Your task to perform on an android device: open app "Indeed Job Search" (install if not already installed) and go to login screen Image 0: 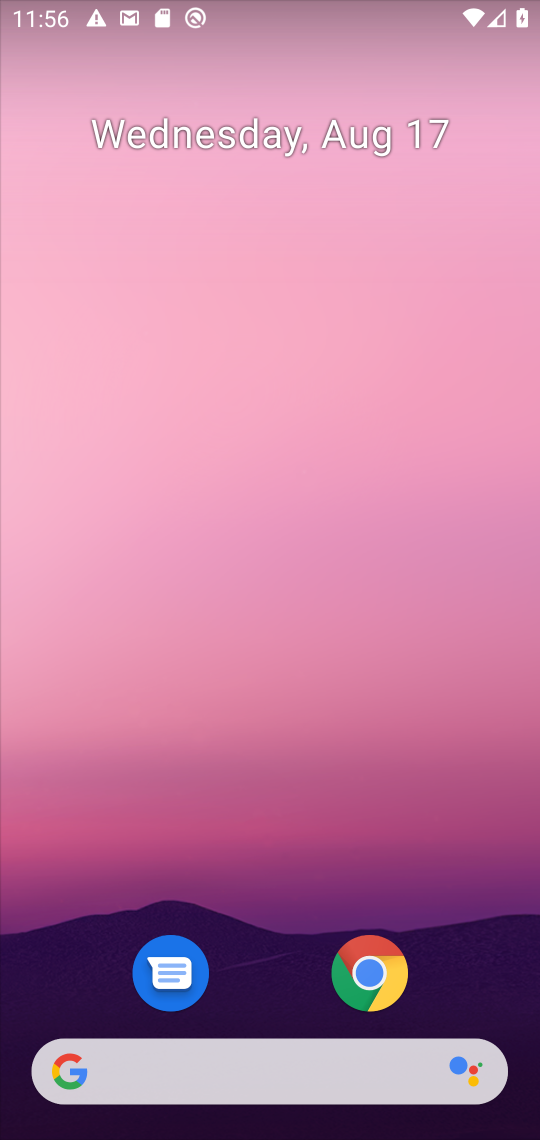
Step 0: drag from (257, 1012) to (155, 62)
Your task to perform on an android device: open app "Indeed Job Search" (install if not already installed) and go to login screen Image 1: 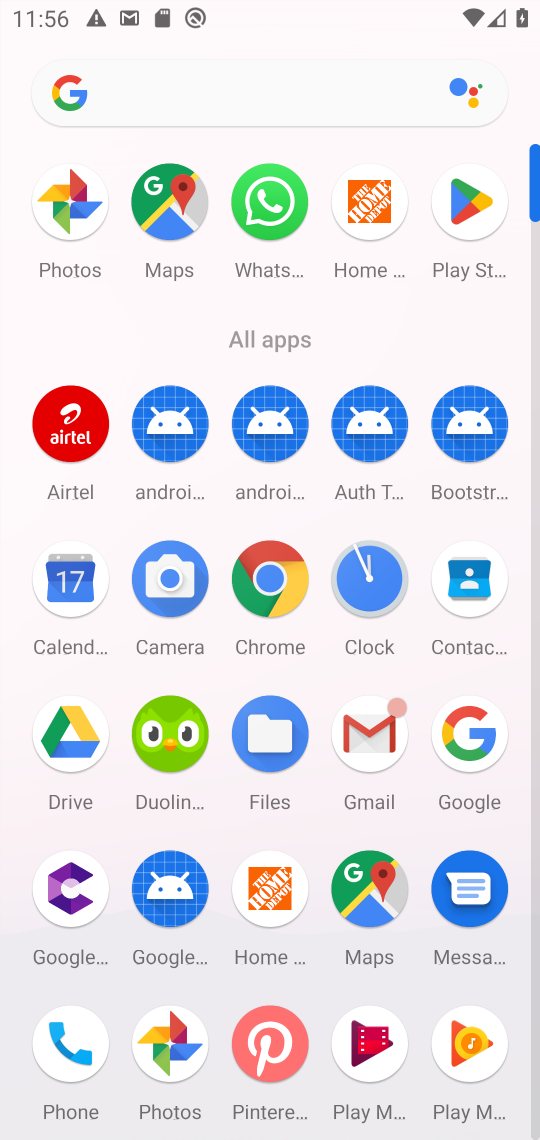
Step 1: click (457, 200)
Your task to perform on an android device: open app "Indeed Job Search" (install if not already installed) and go to login screen Image 2: 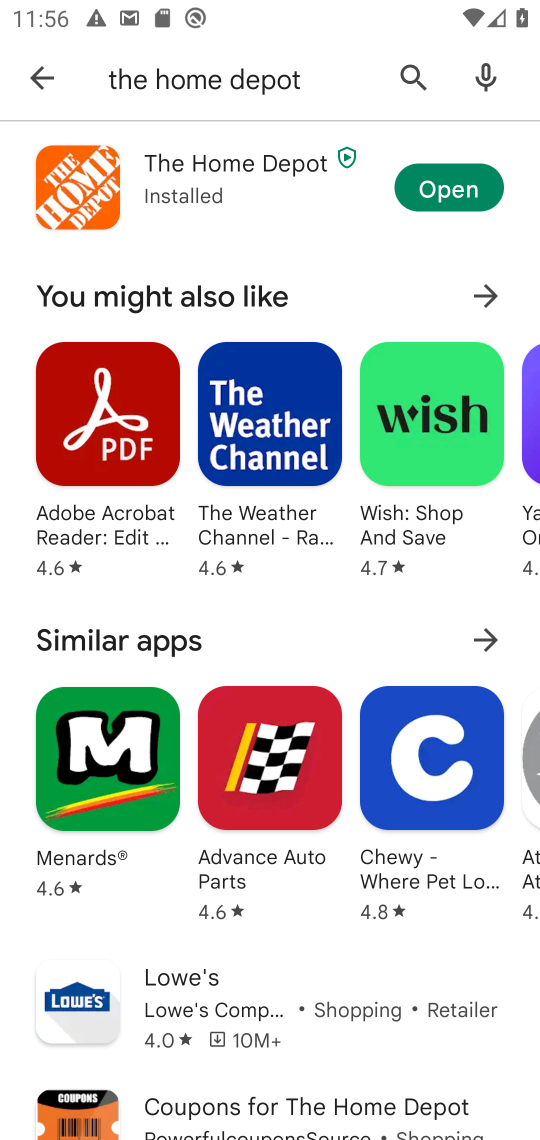
Step 2: click (408, 70)
Your task to perform on an android device: open app "Indeed Job Search" (install if not already installed) and go to login screen Image 3: 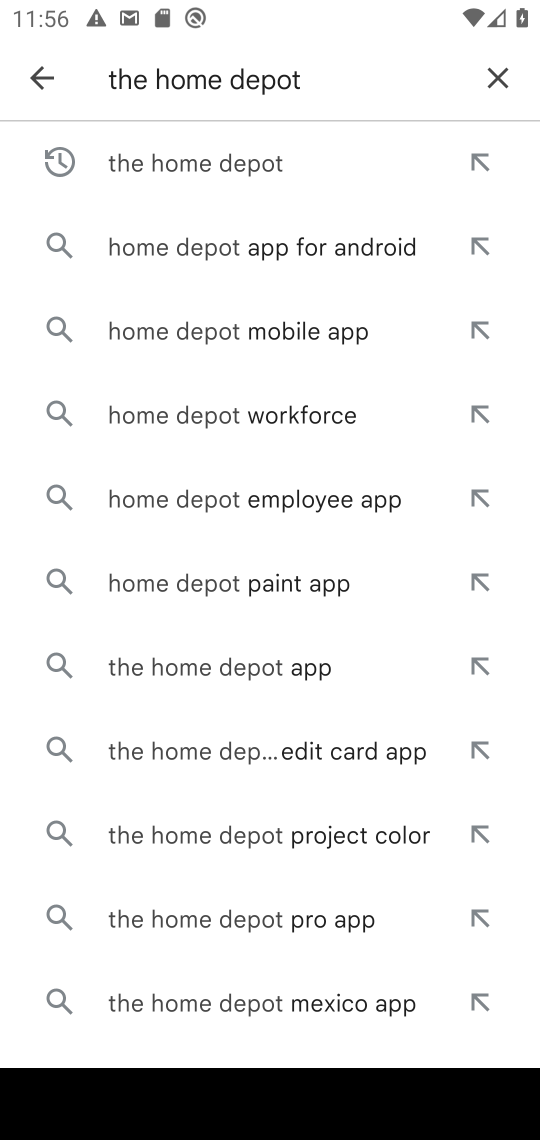
Step 3: click (494, 76)
Your task to perform on an android device: open app "Indeed Job Search" (install if not already installed) and go to login screen Image 4: 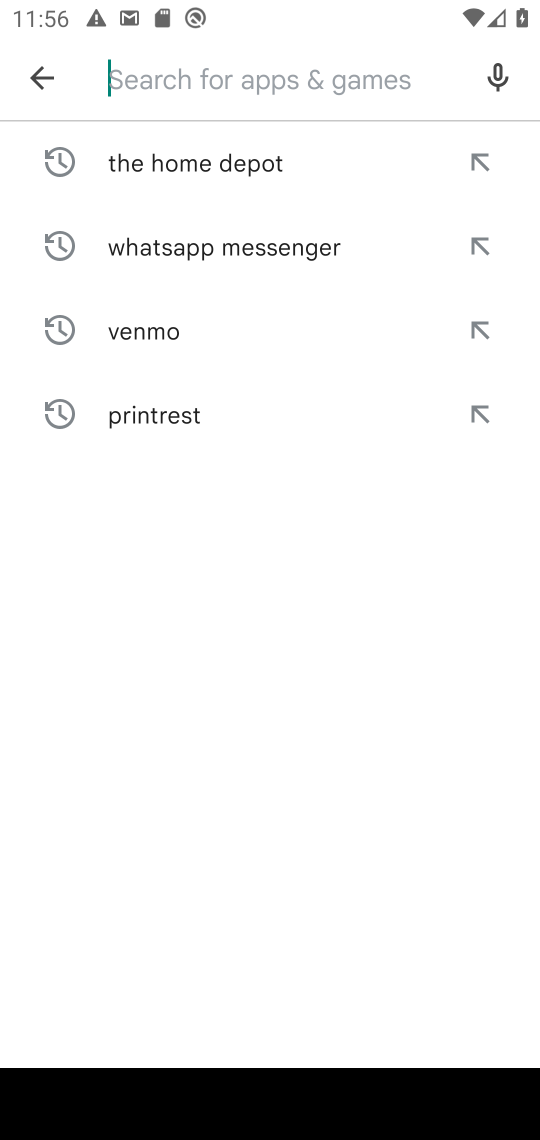
Step 4: type "Indeed Job Search"
Your task to perform on an android device: open app "Indeed Job Search" (install if not already installed) and go to login screen Image 5: 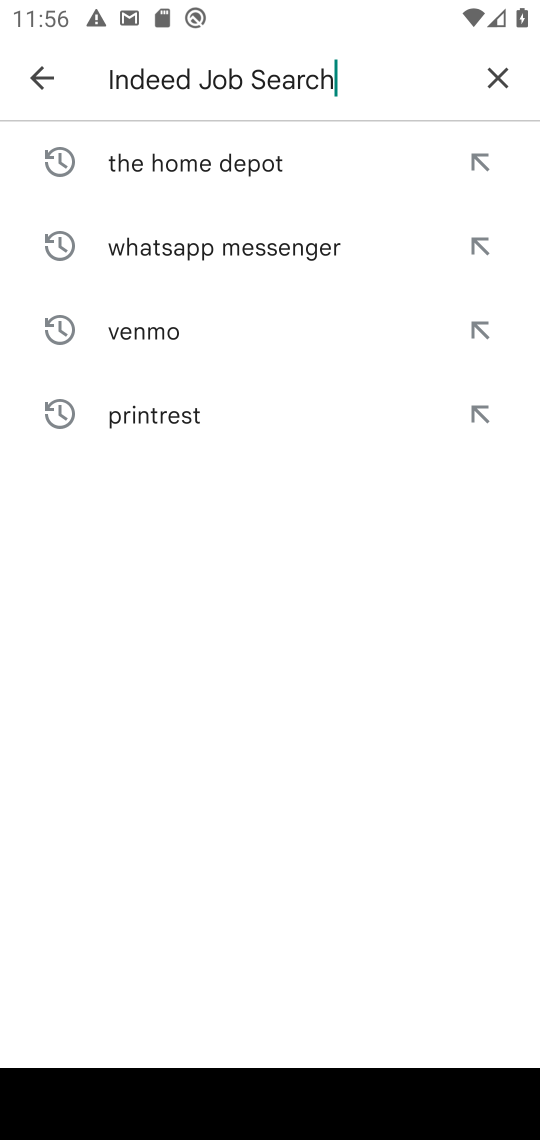
Step 5: type ""
Your task to perform on an android device: open app "Indeed Job Search" (install if not already installed) and go to login screen Image 6: 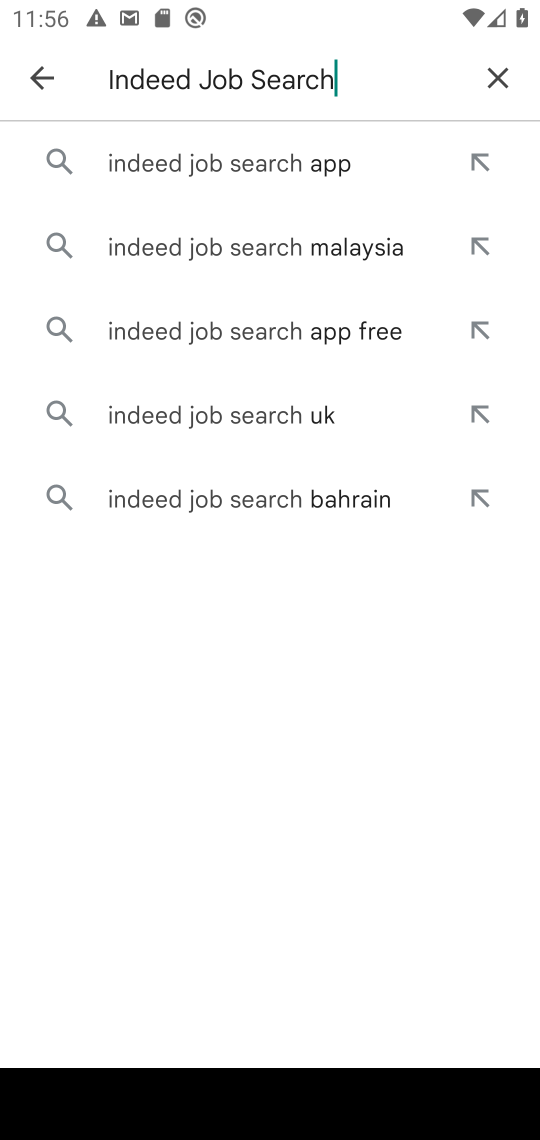
Step 6: click (234, 162)
Your task to perform on an android device: open app "Indeed Job Search" (install if not already installed) and go to login screen Image 7: 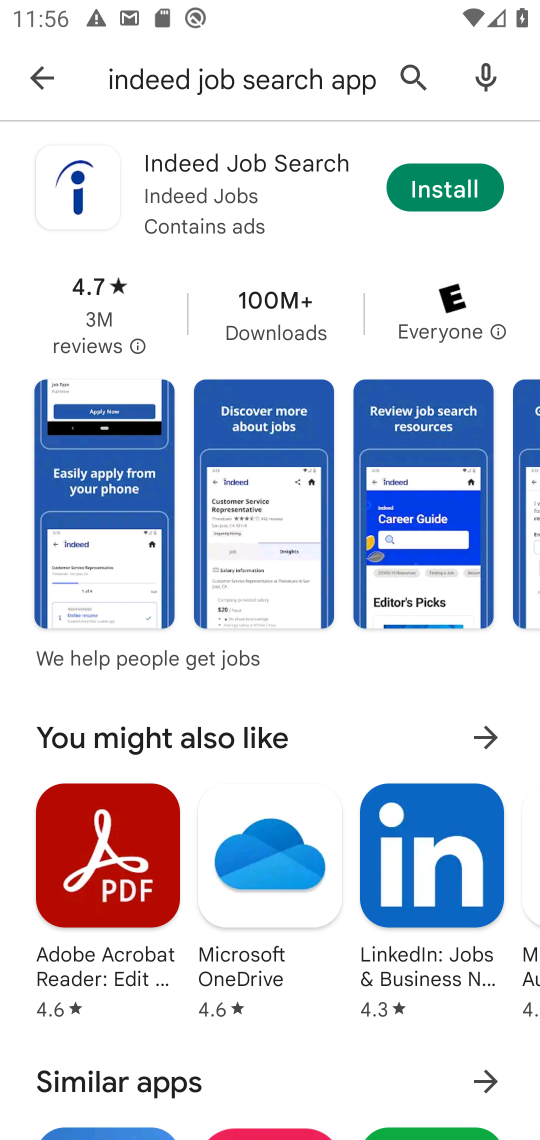
Step 7: click (460, 185)
Your task to perform on an android device: open app "Indeed Job Search" (install if not already installed) and go to login screen Image 8: 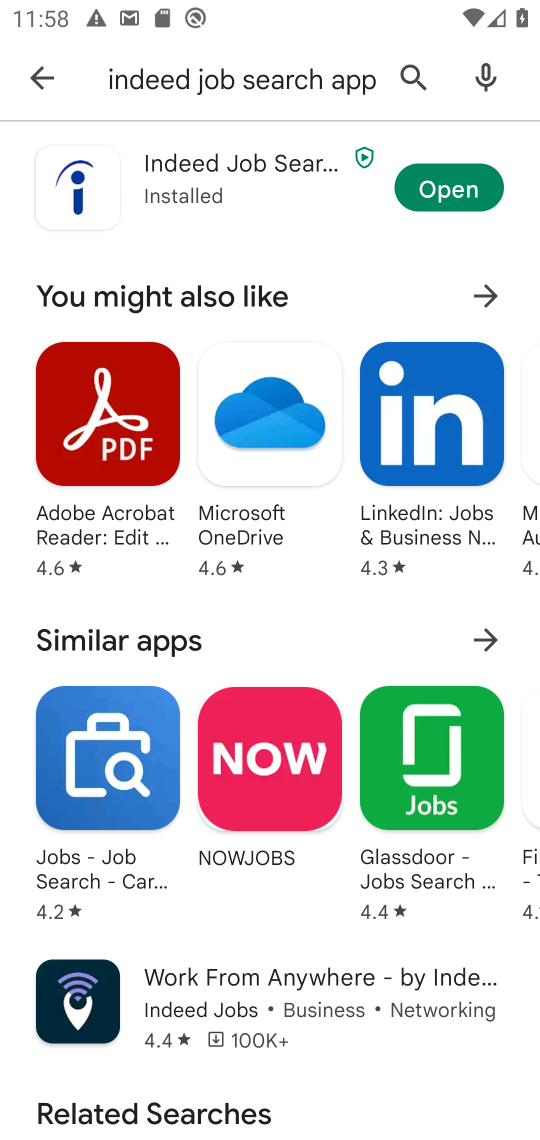
Step 8: click (425, 199)
Your task to perform on an android device: open app "Indeed Job Search" (install if not already installed) and go to login screen Image 9: 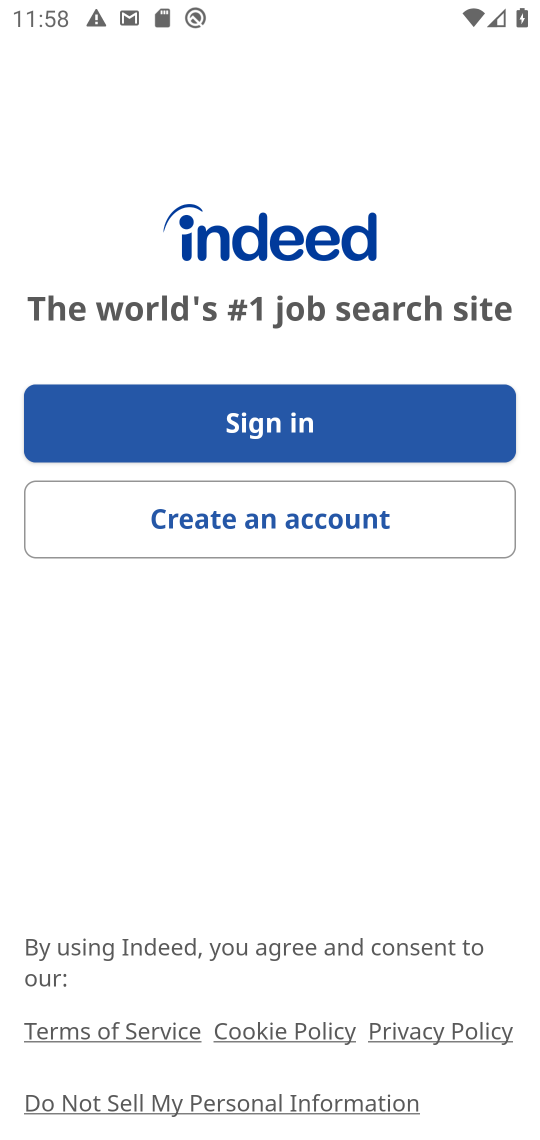
Step 9: task complete